Your task to perform on an android device: Open Amazon Image 0: 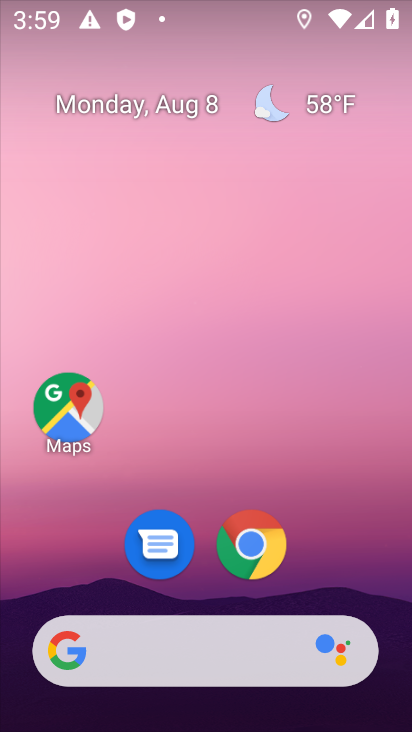
Step 0: drag from (226, 206) to (229, 15)
Your task to perform on an android device: Open Amazon Image 1: 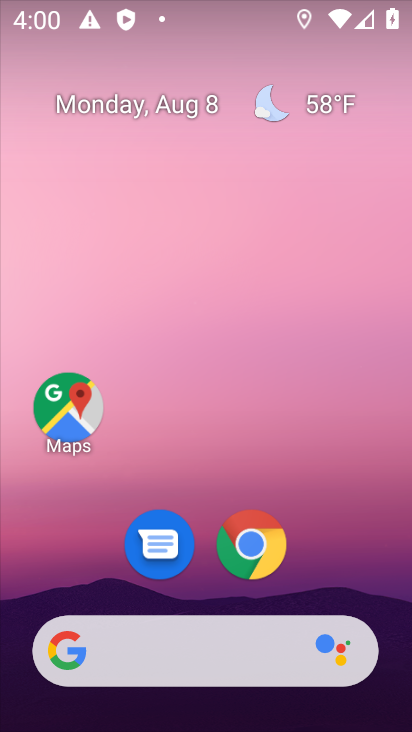
Step 1: drag from (215, 612) to (225, 89)
Your task to perform on an android device: Open Amazon Image 2: 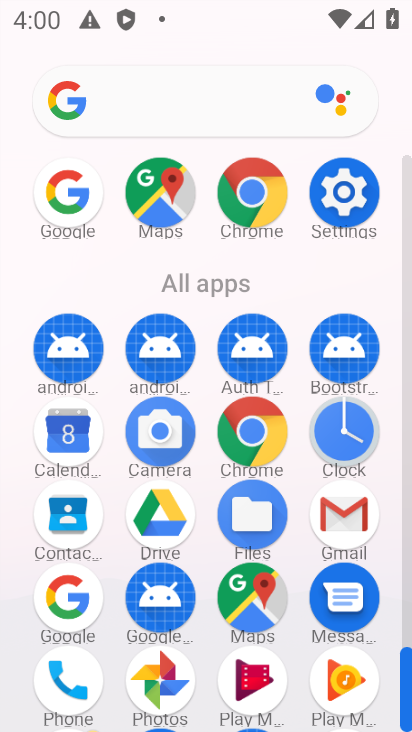
Step 2: click (231, 224)
Your task to perform on an android device: Open Amazon Image 3: 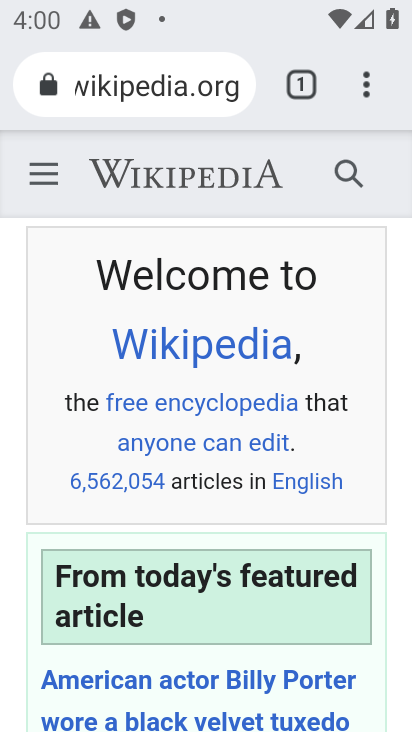
Step 3: click (212, 84)
Your task to perform on an android device: Open Amazon Image 4: 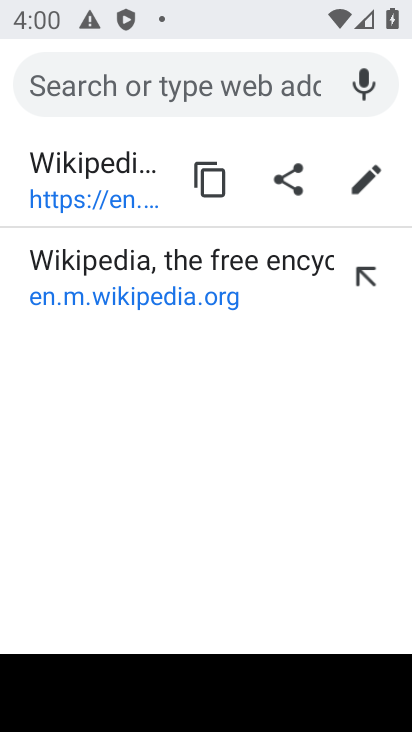
Step 4: type "amazon"
Your task to perform on an android device: Open Amazon Image 5: 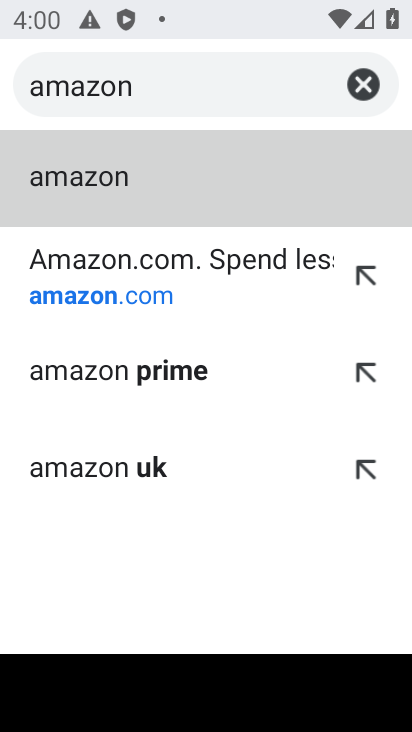
Step 5: click (152, 285)
Your task to perform on an android device: Open Amazon Image 6: 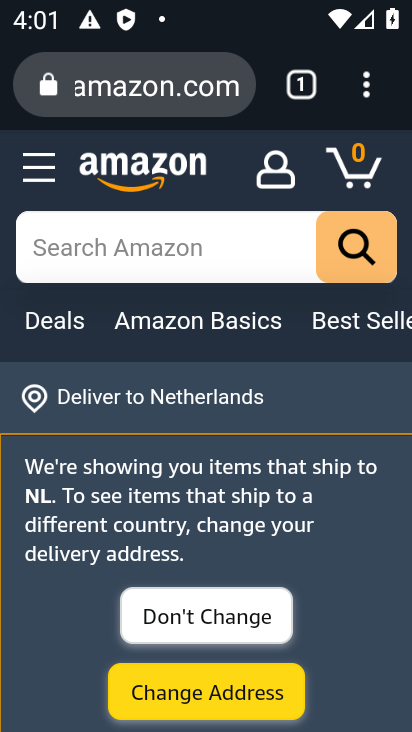
Step 6: task complete